Your task to perform on an android device: Go to display settings Image 0: 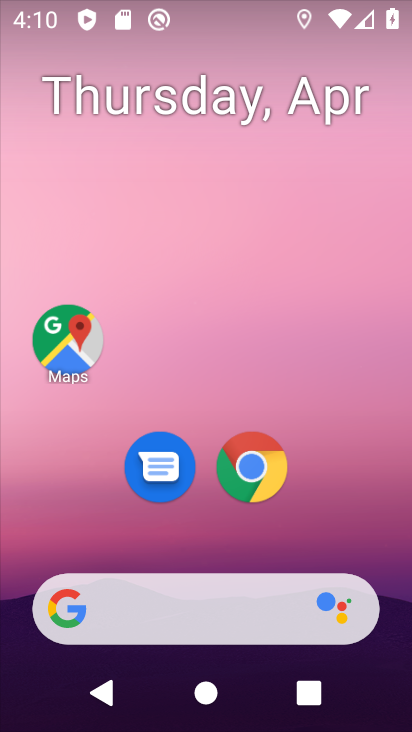
Step 0: drag from (195, 553) to (240, 130)
Your task to perform on an android device: Go to display settings Image 1: 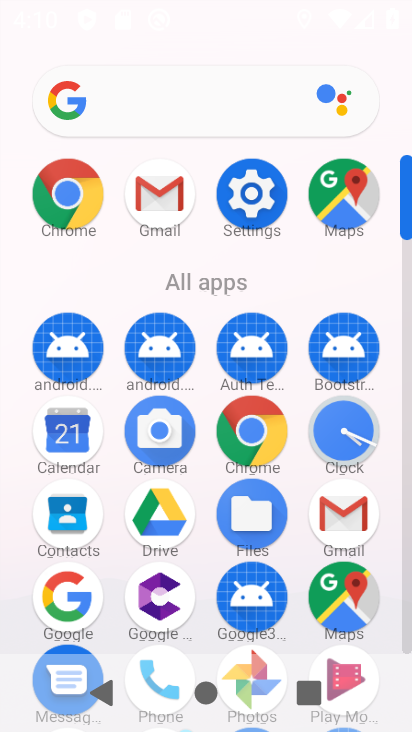
Step 1: click (251, 216)
Your task to perform on an android device: Go to display settings Image 2: 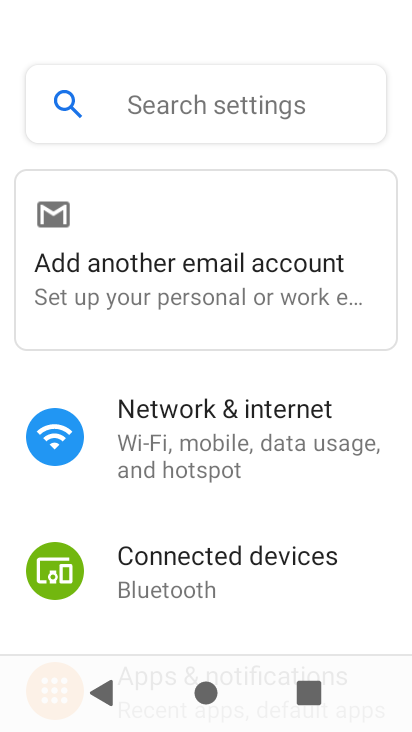
Step 2: drag from (256, 487) to (293, 162)
Your task to perform on an android device: Go to display settings Image 3: 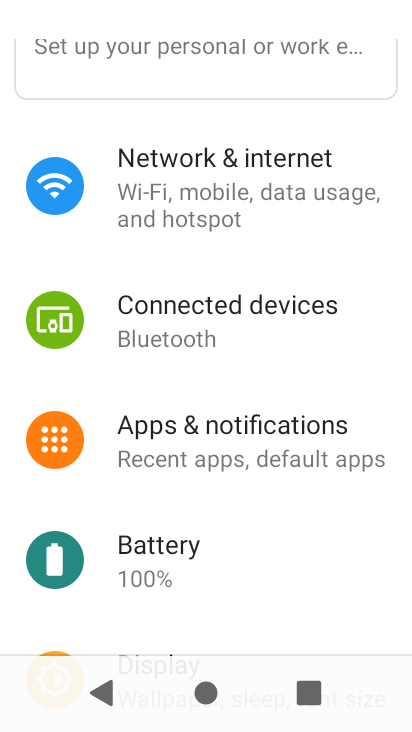
Step 3: drag from (177, 582) to (252, 298)
Your task to perform on an android device: Go to display settings Image 4: 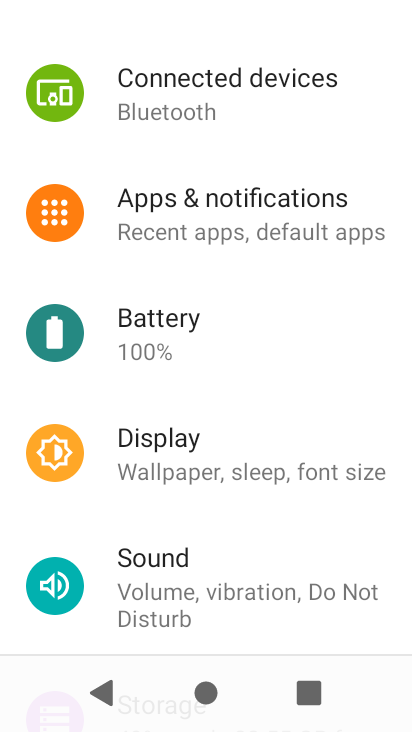
Step 4: click (199, 455)
Your task to perform on an android device: Go to display settings Image 5: 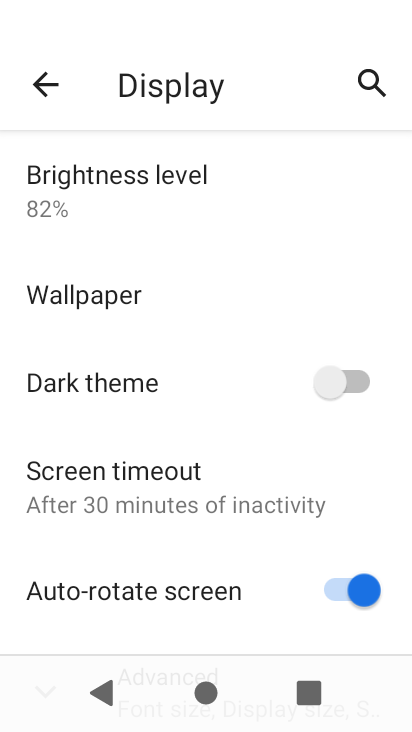
Step 5: task complete